Your task to perform on an android device: turn off airplane mode Image 0: 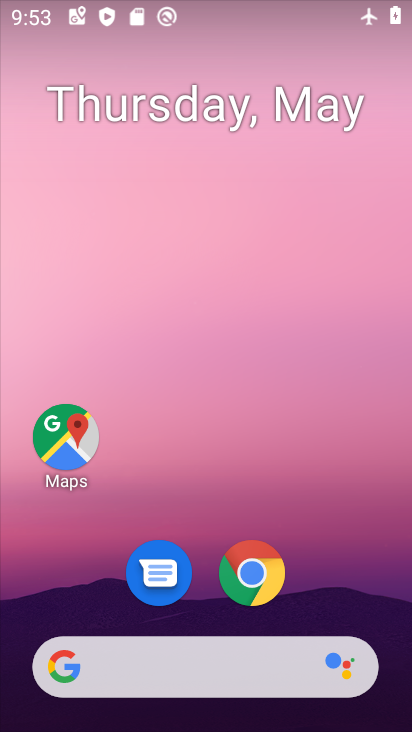
Step 0: drag from (199, 602) to (199, 172)
Your task to perform on an android device: turn off airplane mode Image 1: 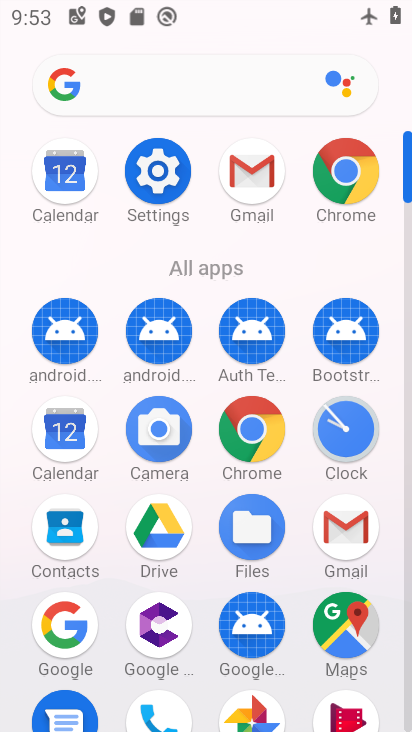
Step 1: click (171, 171)
Your task to perform on an android device: turn off airplane mode Image 2: 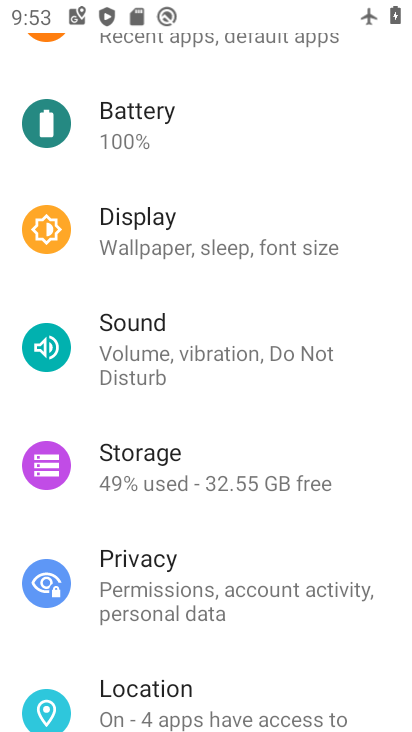
Step 2: drag from (178, 179) to (186, 615)
Your task to perform on an android device: turn off airplane mode Image 3: 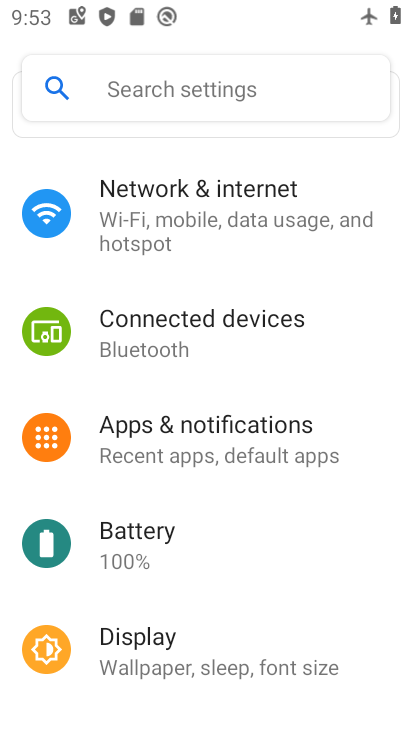
Step 3: click (188, 241)
Your task to perform on an android device: turn off airplane mode Image 4: 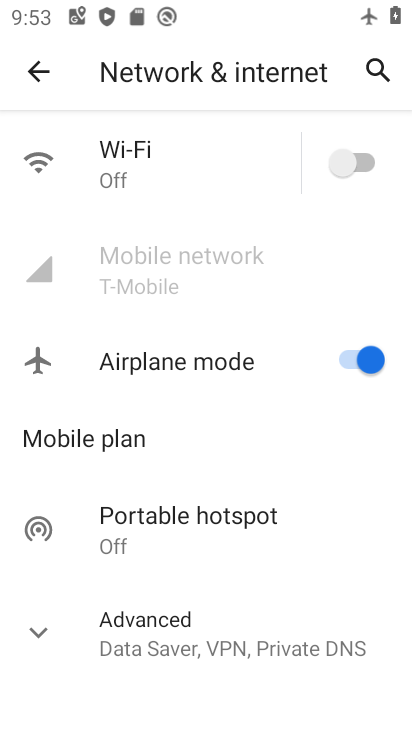
Step 4: click (348, 361)
Your task to perform on an android device: turn off airplane mode Image 5: 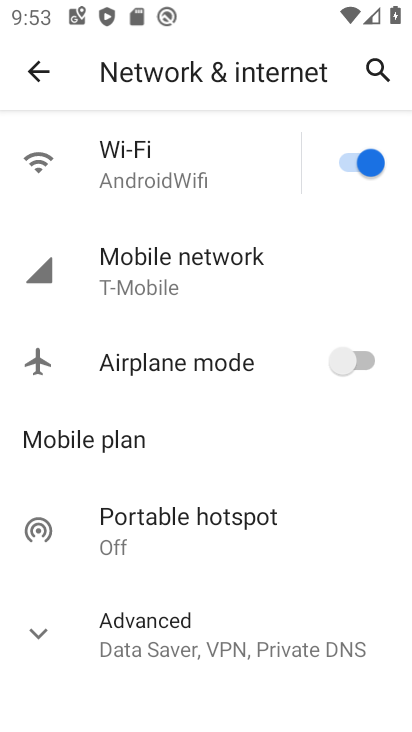
Step 5: task complete